Your task to perform on an android device: Go to privacy settings Image 0: 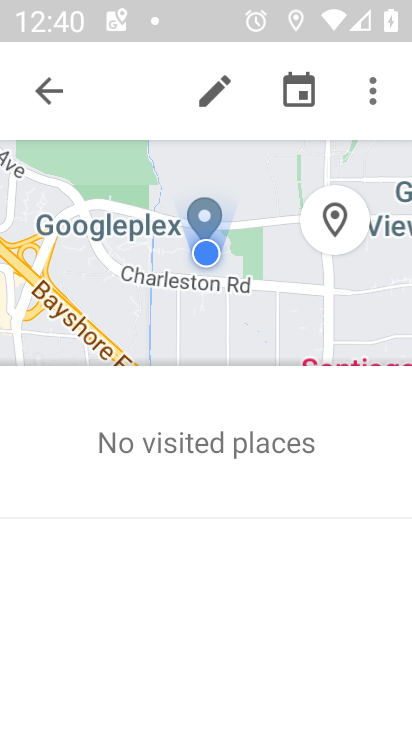
Step 0: press home button
Your task to perform on an android device: Go to privacy settings Image 1: 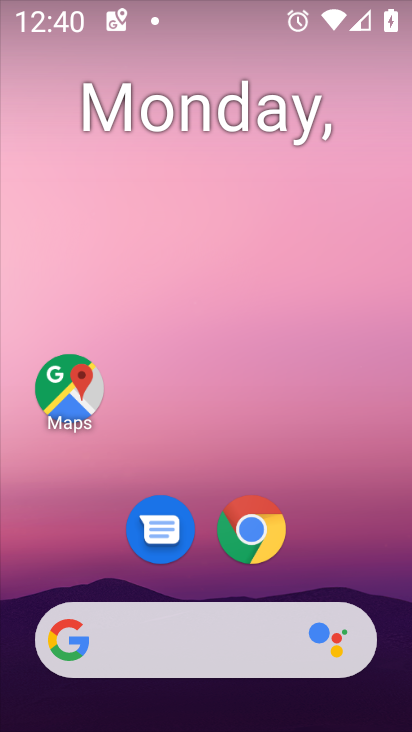
Step 1: drag from (184, 621) to (196, 178)
Your task to perform on an android device: Go to privacy settings Image 2: 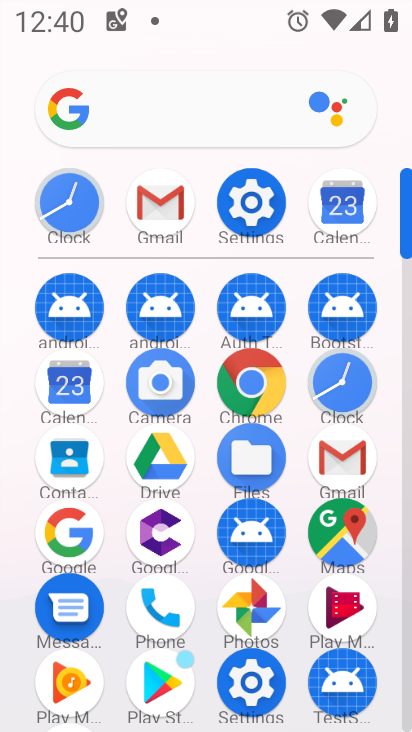
Step 2: click (272, 212)
Your task to perform on an android device: Go to privacy settings Image 3: 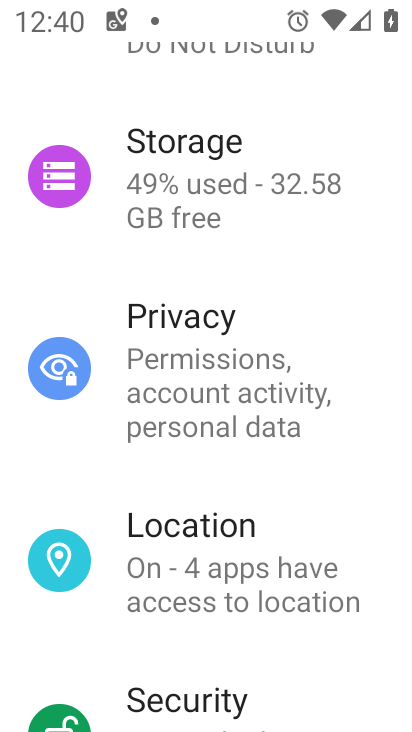
Step 3: click (186, 413)
Your task to perform on an android device: Go to privacy settings Image 4: 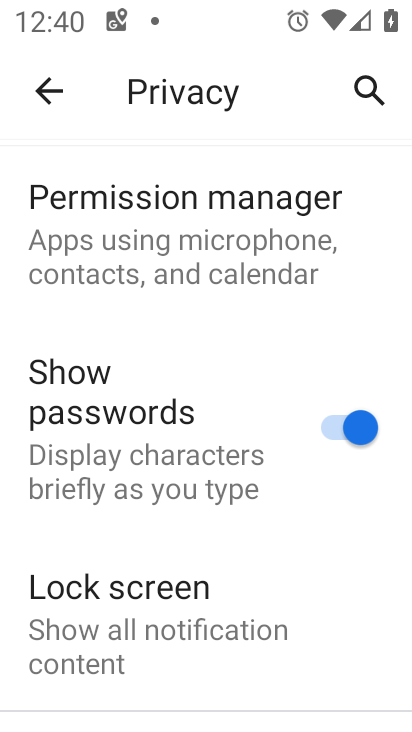
Step 4: task complete